Your task to perform on an android device: open app "LiveIn - Share Your Moment" Image 0: 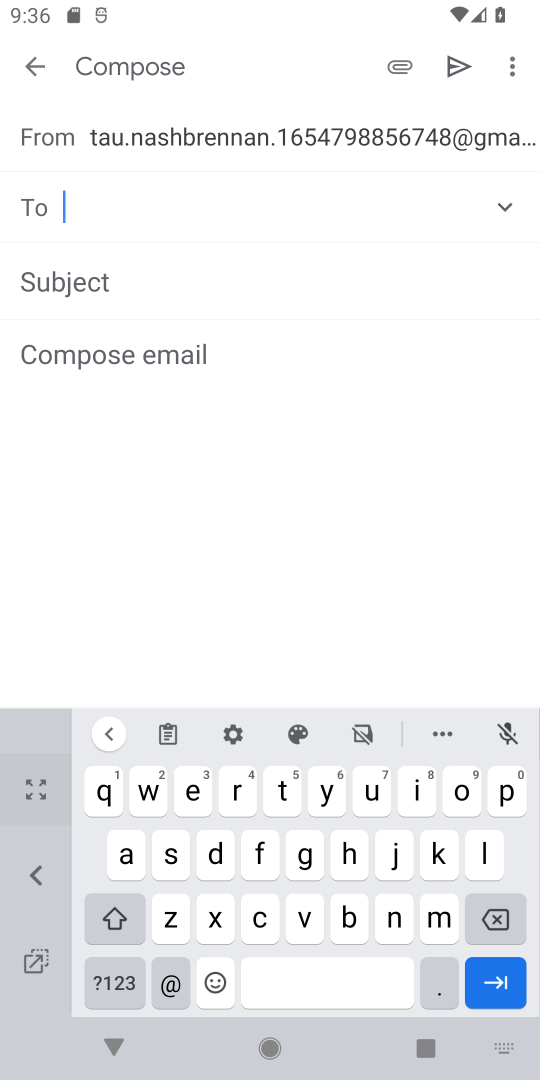
Step 0: press home button
Your task to perform on an android device: open app "LiveIn - Share Your Moment" Image 1: 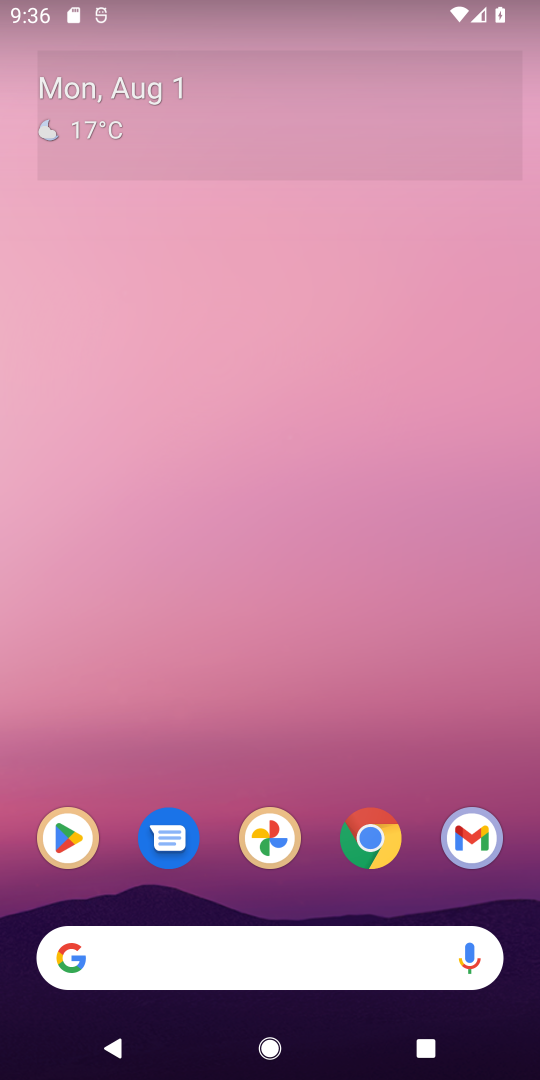
Step 1: click (85, 831)
Your task to perform on an android device: open app "LiveIn - Share Your Moment" Image 2: 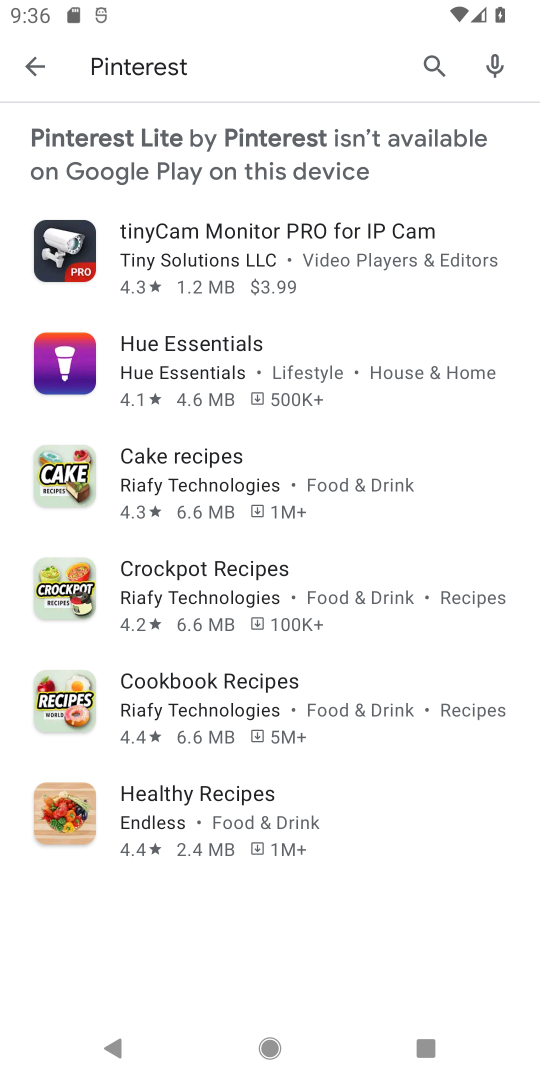
Step 2: click (437, 71)
Your task to perform on an android device: open app "LiveIn - Share Your Moment" Image 3: 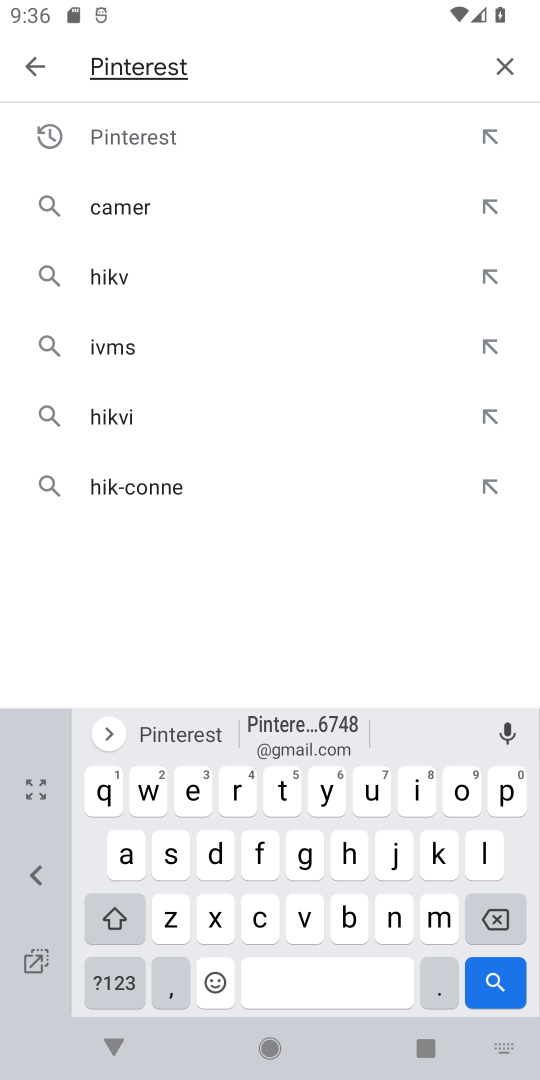
Step 3: click (502, 67)
Your task to perform on an android device: open app "LiveIn - Share Your Moment" Image 4: 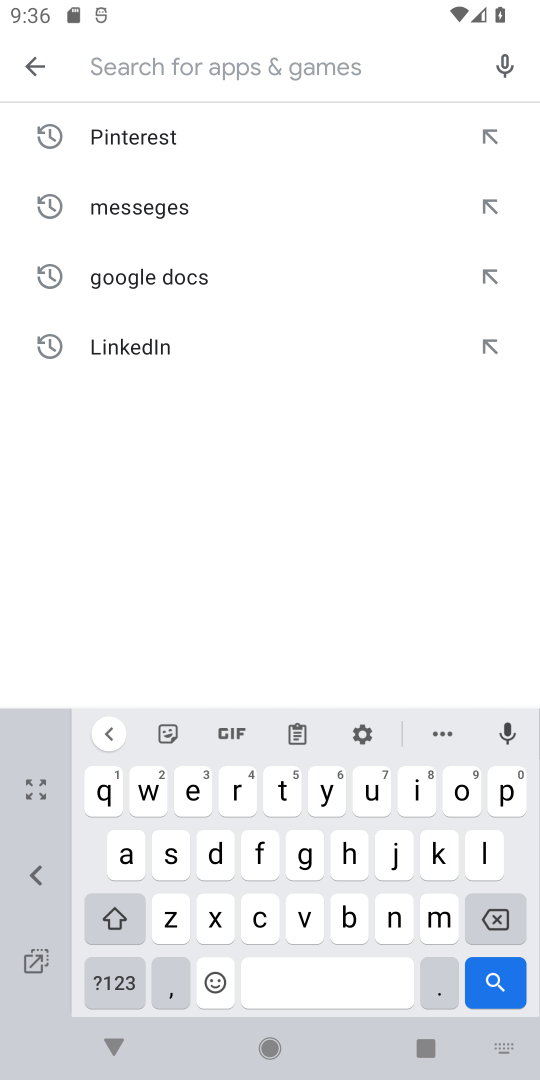
Step 4: click (335, 46)
Your task to perform on an android device: open app "LiveIn - Share Your Moment" Image 5: 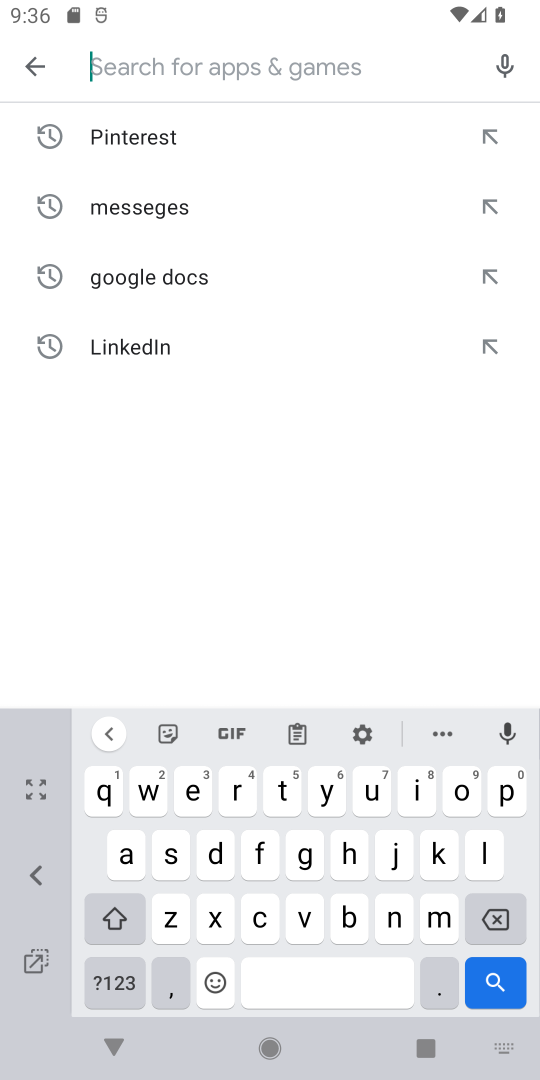
Step 5: click (315, 71)
Your task to perform on an android device: open app "LiveIn - Share Your Moment" Image 6: 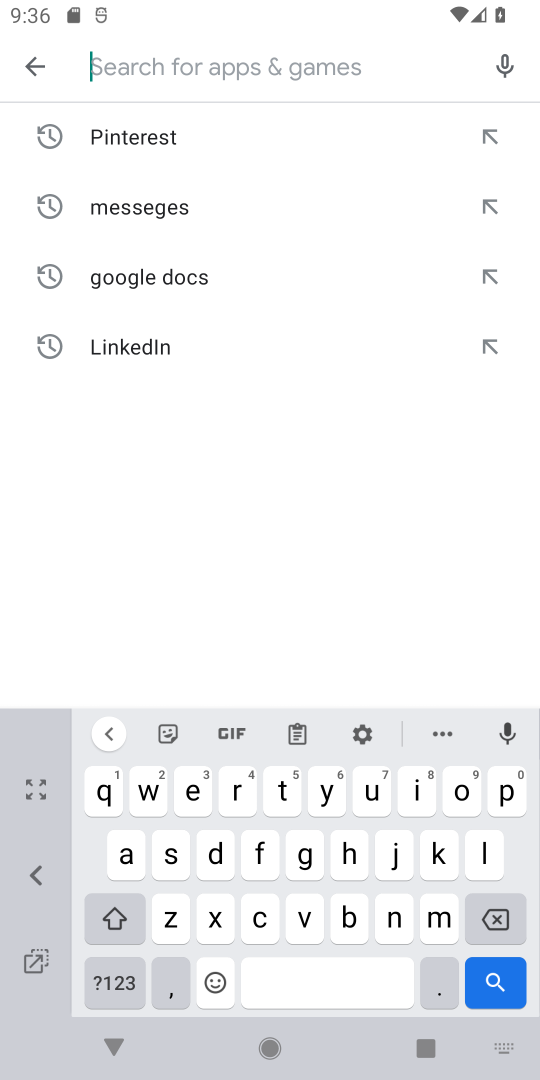
Step 6: type "livein"
Your task to perform on an android device: open app "LiveIn - Share Your Moment" Image 7: 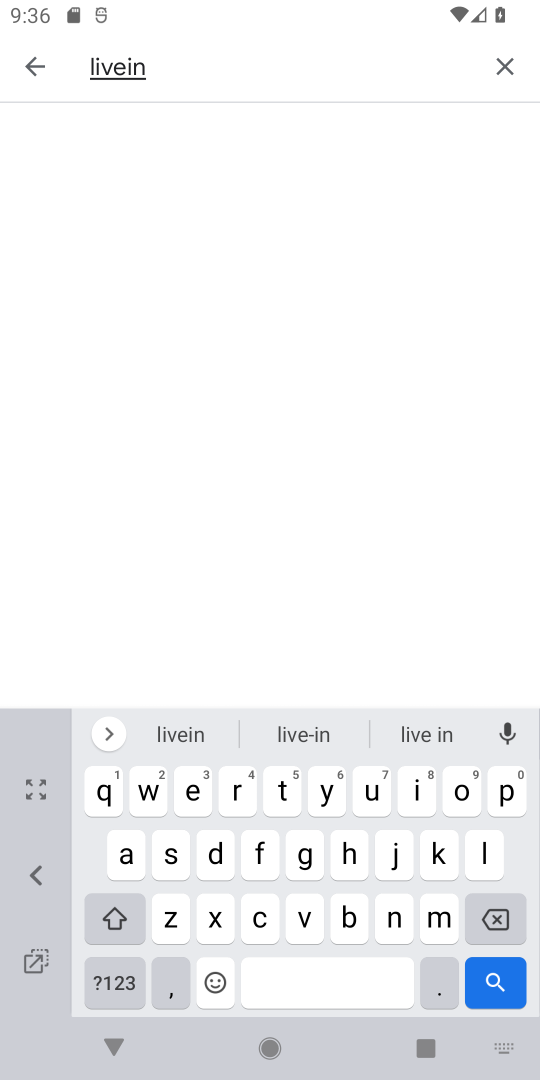
Step 7: click (506, 972)
Your task to perform on an android device: open app "LiveIn - Share Your Moment" Image 8: 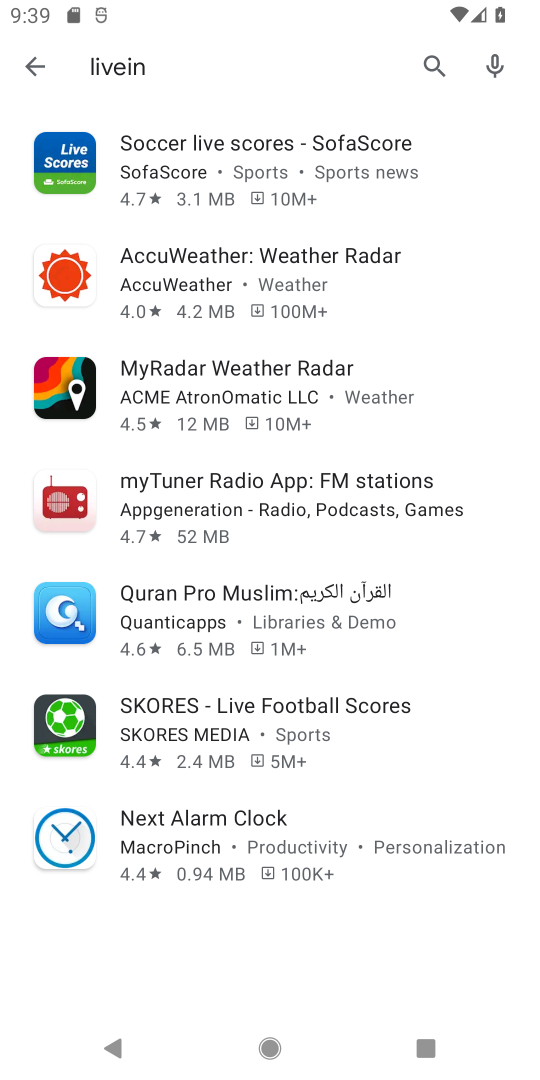
Step 8: task complete